Your task to perform on an android device: Search for apple airpods pro on costco.com, select the first entry, add it to the cart, then select checkout. Image 0: 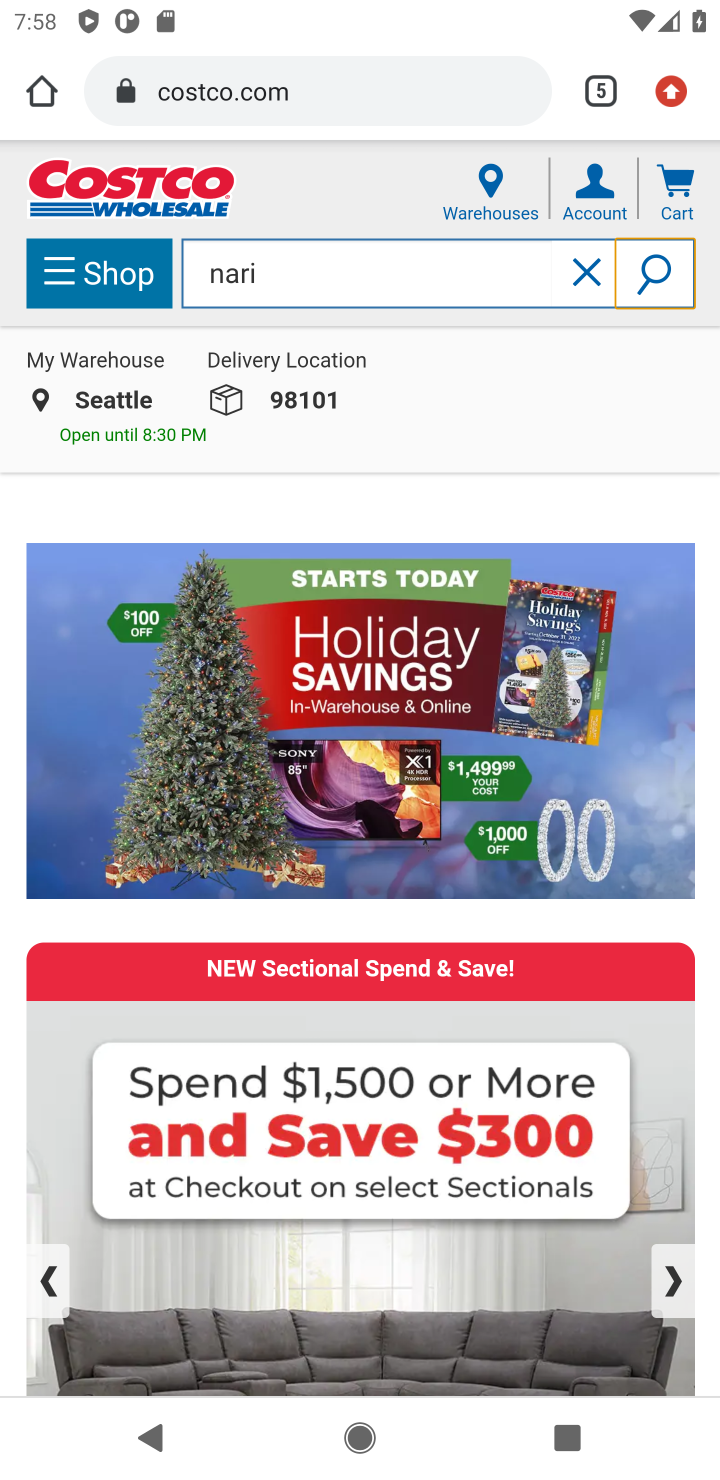
Step 0: click (295, 253)
Your task to perform on an android device: Search for apple airpods pro on costco.com, select the first entry, add it to the cart, then select checkout. Image 1: 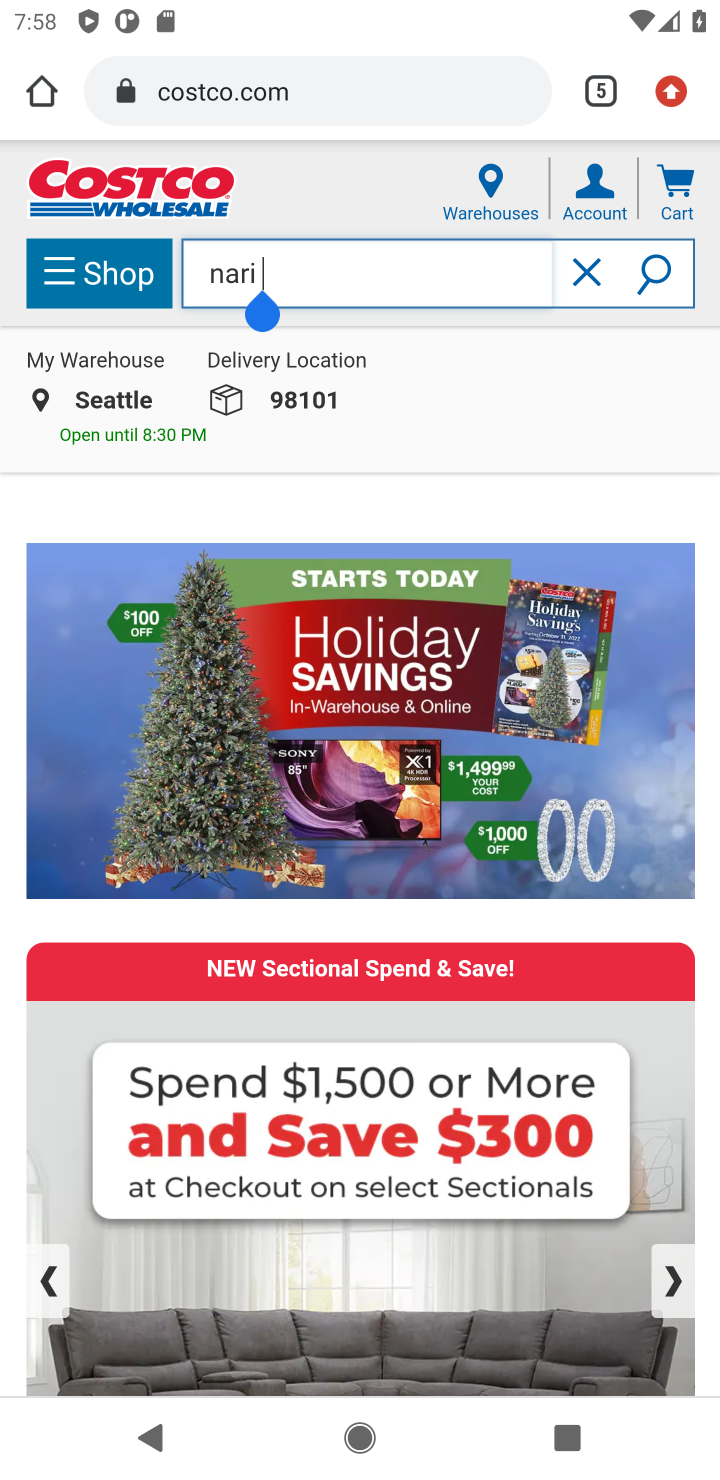
Step 1: click (571, 265)
Your task to perform on an android device: Search for apple airpods pro on costco.com, select the first entry, add it to the cart, then select checkout. Image 2: 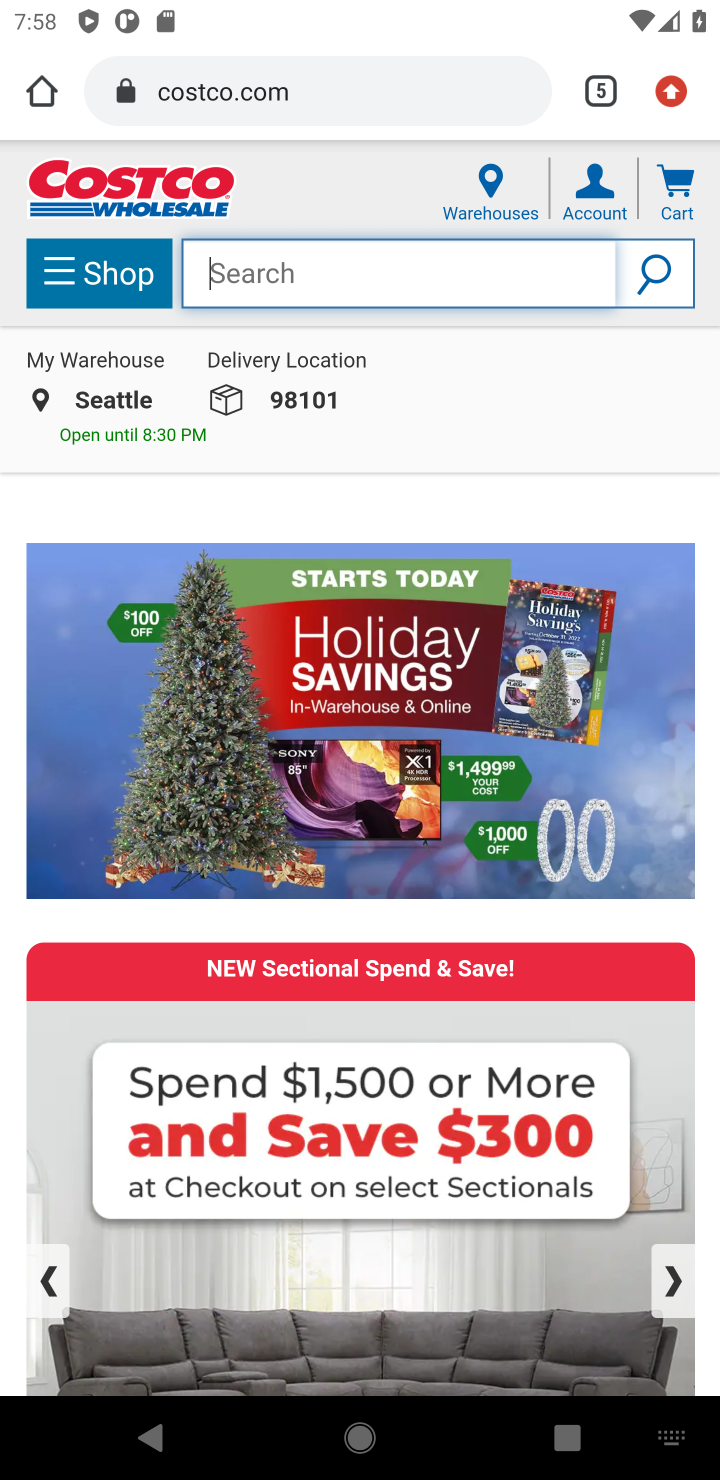
Step 2: click (301, 260)
Your task to perform on an android device: Search for apple airpods pro on costco.com, select the first entry, add it to the cart, then select checkout. Image 3: 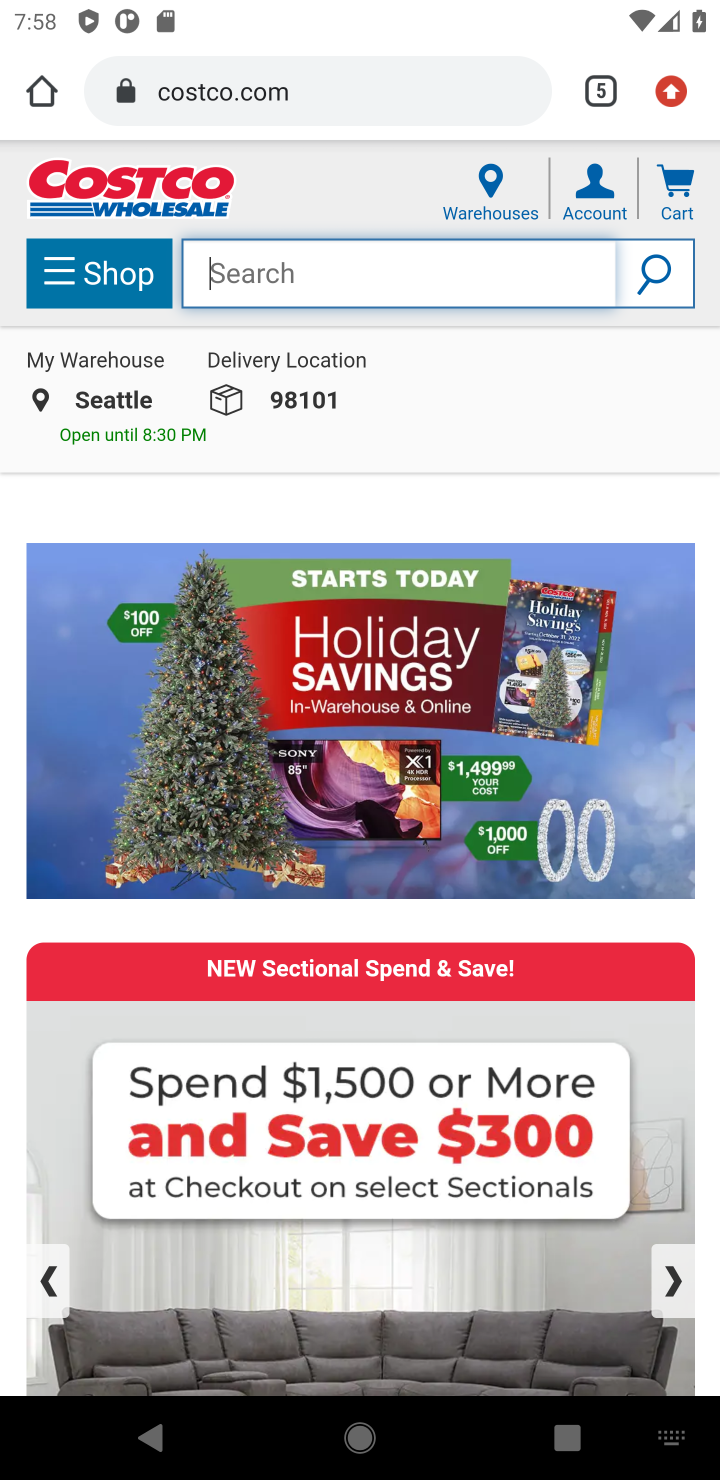
Step 3: type "airpods "
Your task to perform on an android device: Search for apple airpods pro on costco.com, select the first entry, add it to the cart, then select checkout. Image 4: 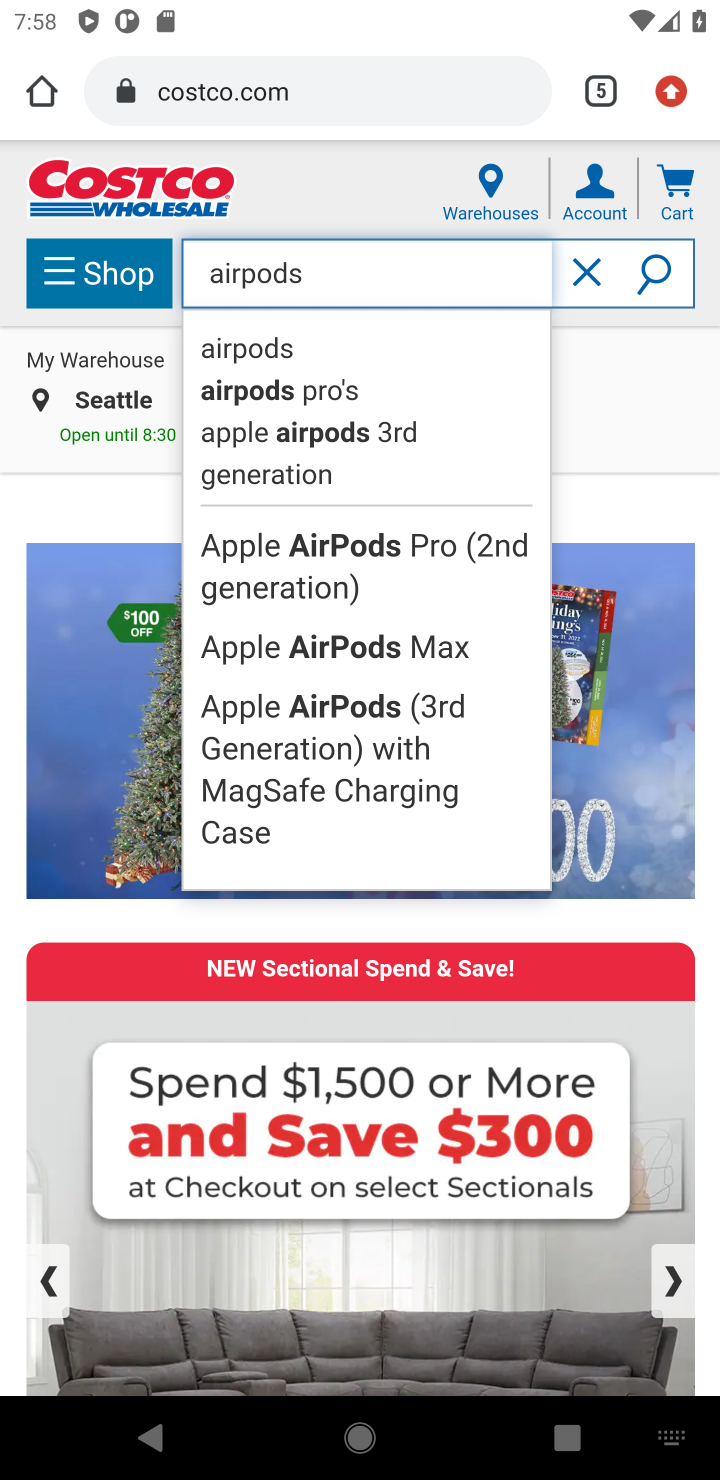
Step 4: click (333, 550)
Your task to perform on an android device: Search for apple airpods pro on costco.com, select the first entry, add it to the cart, then select checkout. Image 5: 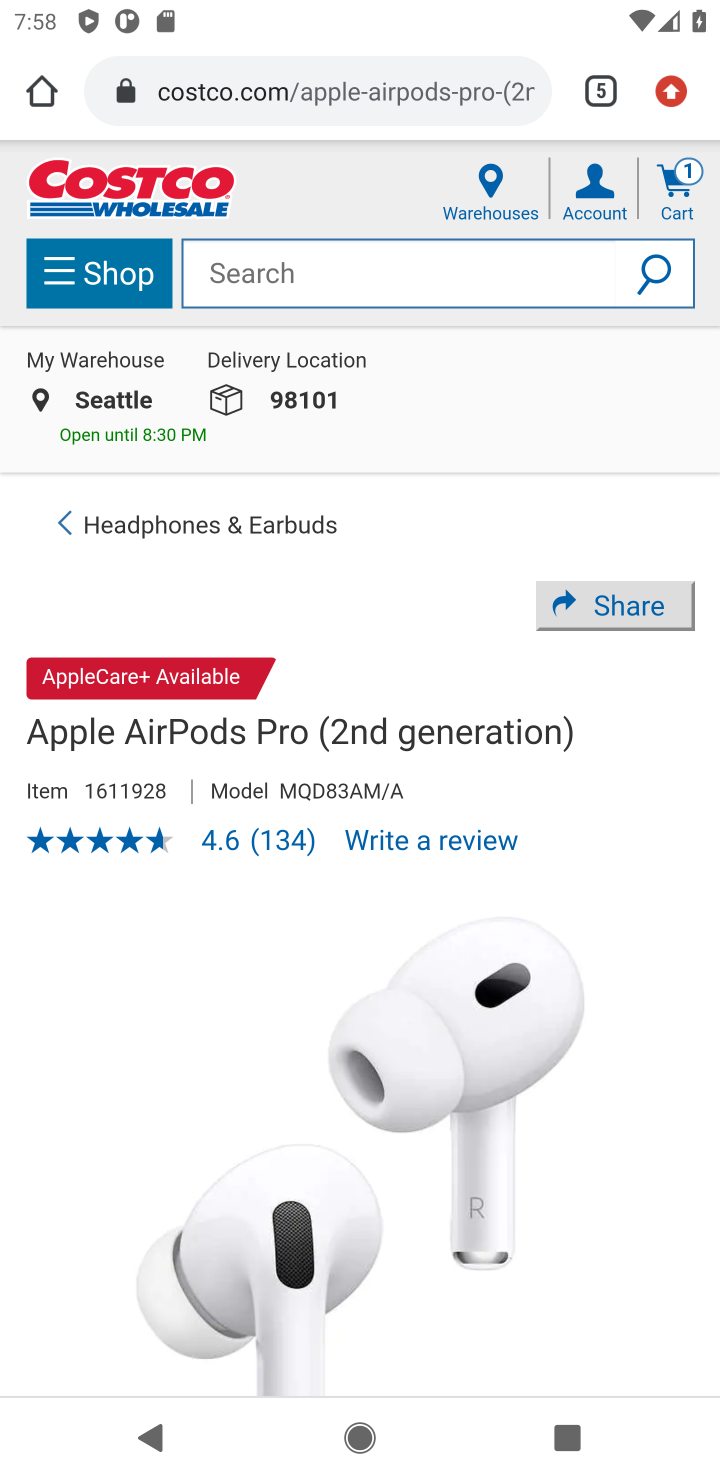
Step 5: drag from (257, 1162) to (269, 457)
Your task to perform on an android device: Search for apple airpods pro on costco.com, select the first entry, add it to the cart, then select checkout. Image 6: 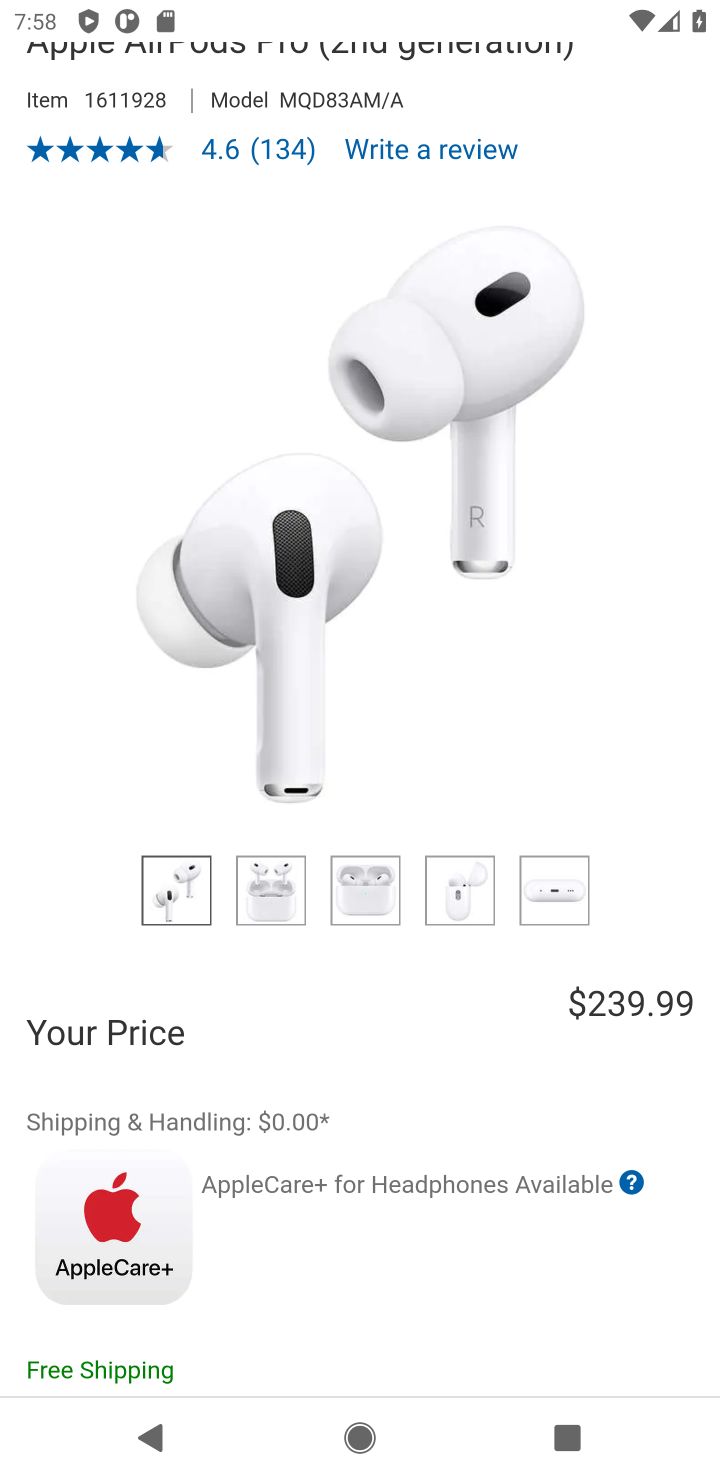
Step 6: drag from (219, 1183) to (366, 472)
Your task to perform on an android device: Search for apple airpods pro on costco.com, select the first entry, add it to the cart, then select checkout. Image 7: 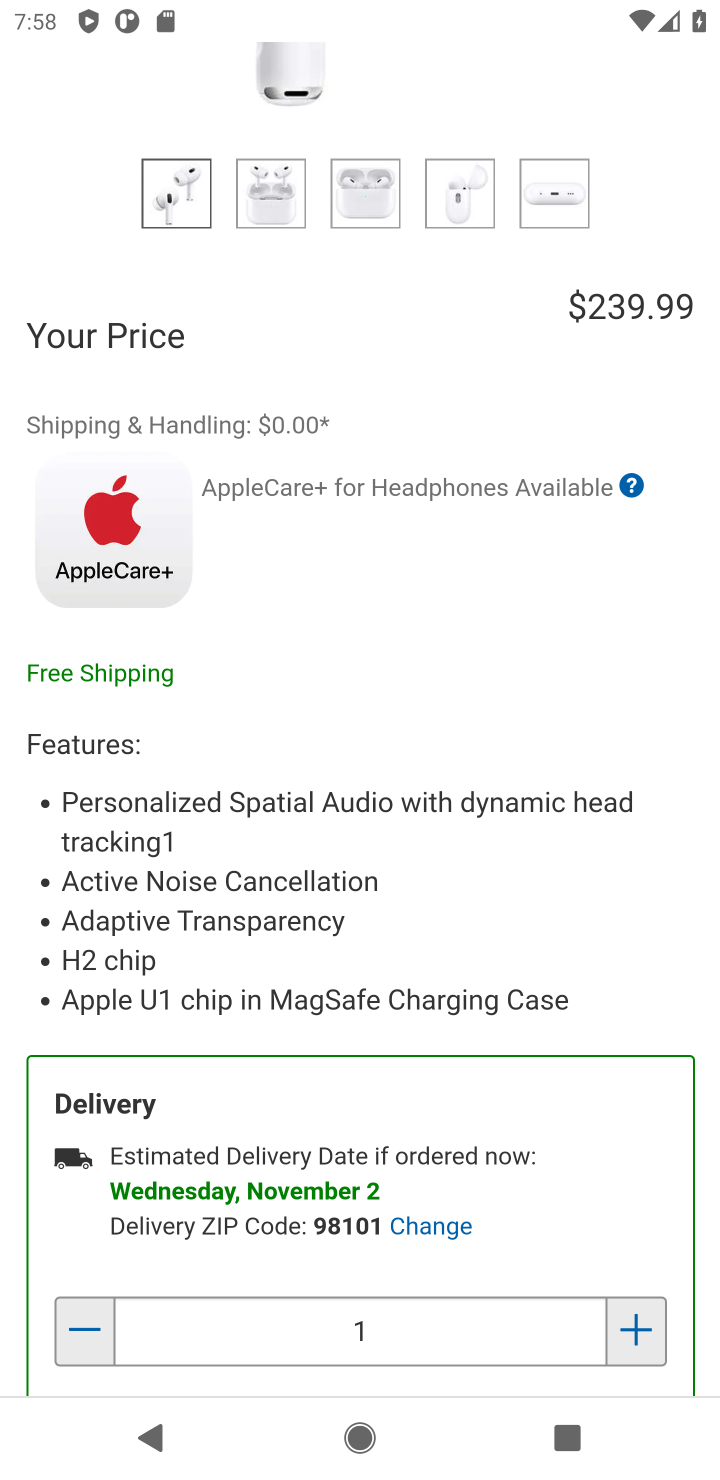
Step 7: drag from (404, 1067) to (491, 318)
Your task to perform on an android device: Search for apple airpods pro on costco.com, select the first entry, add it to the cart, then select checkout. Image 8: 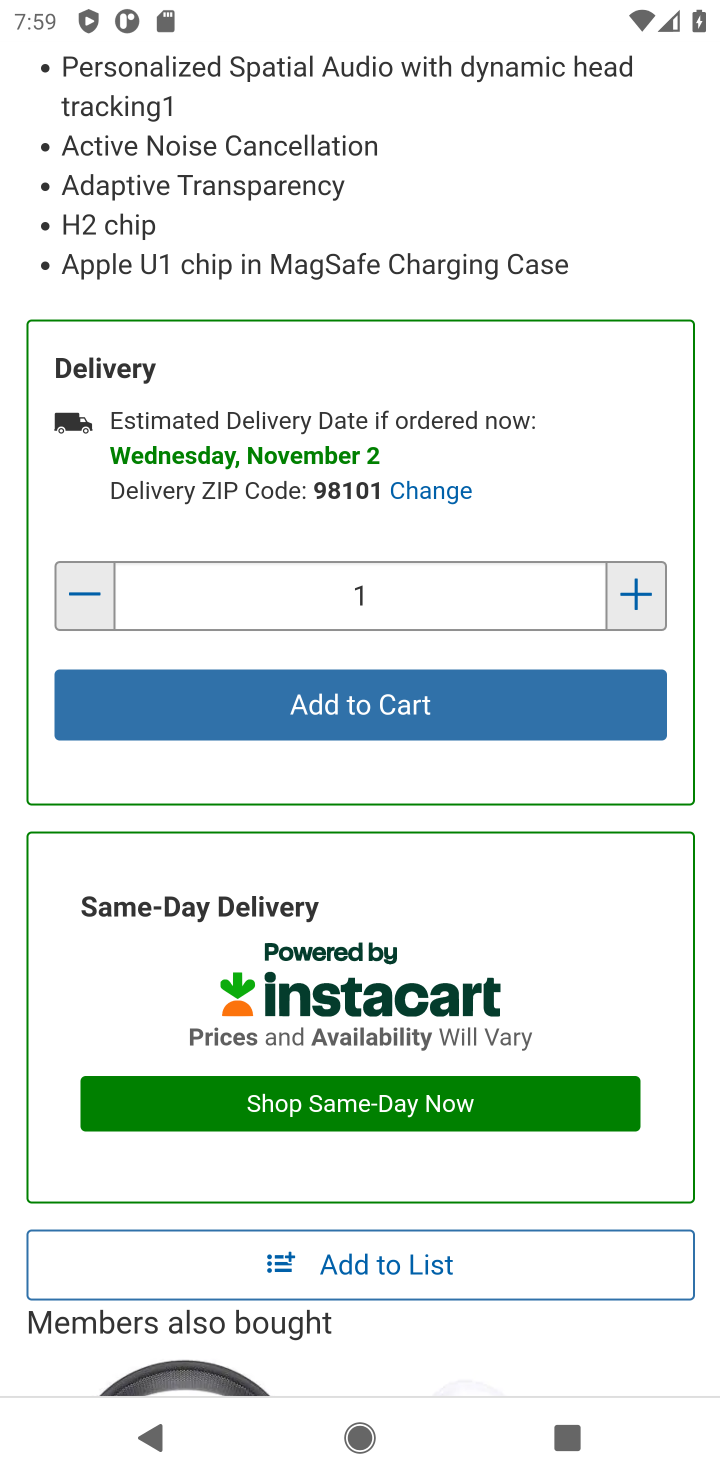
Step 8: click (339, 690)
Your task to perform on an android device: Search for apple airpods pro on costco.com, select the first entry, add it to the cart, then select checkout. Image 9: 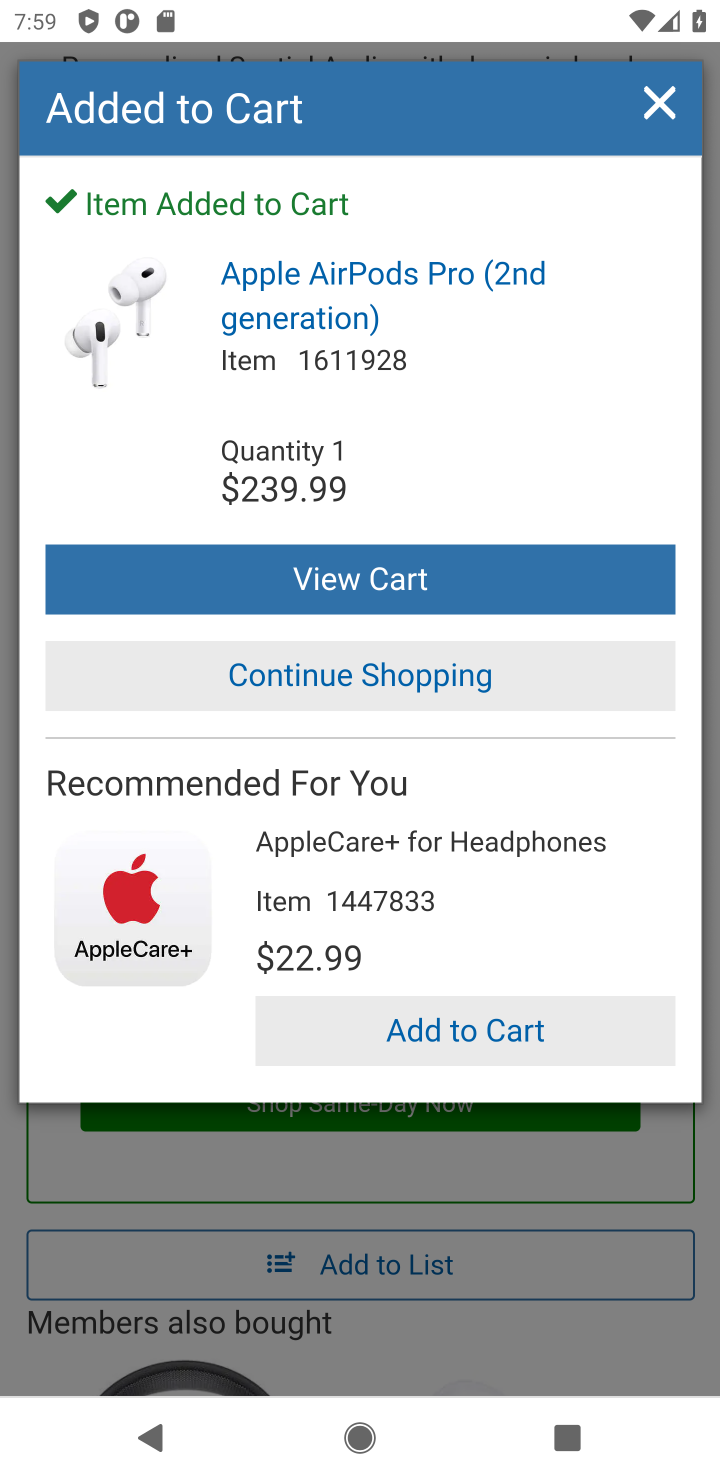
Step 9: task complete